Your task to perform on an android device: open app "Grab" (install if not already installed) and go to login screen Image 0: 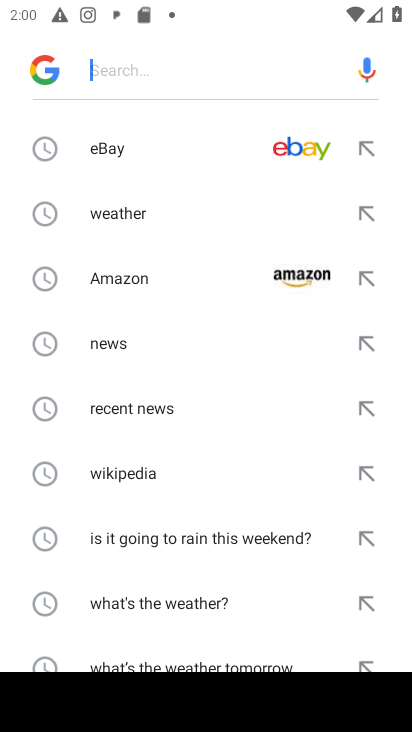
Step 0: press home button
Your task to perform on an android device: open app "Grab" (install if not already installed) and go to login screen Image 1: 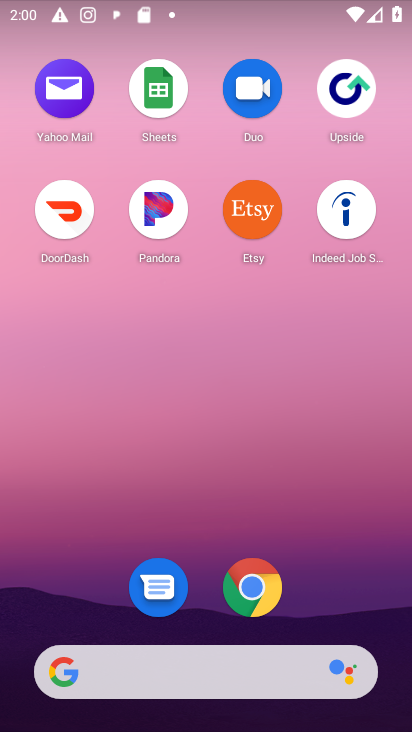
Step 1: press home button
Your task to perform on an android device: open app "Grab" (install if not already installed) and go to login screen Image 2: 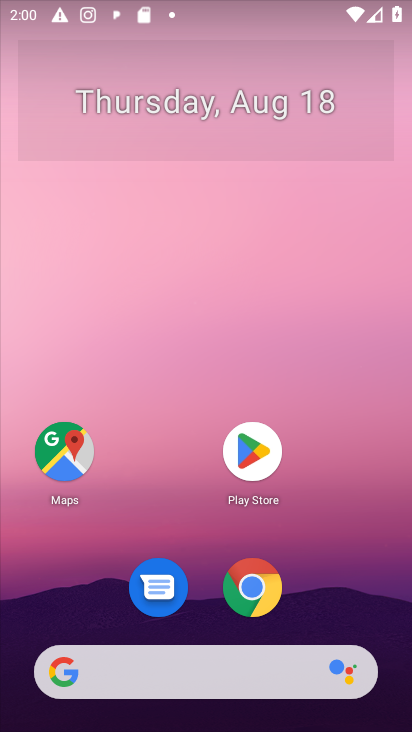
Step 2: click (248, 455)
Your task to perform on an android device: open app "Grab" (install if not already installed) and go to login screen Image 3: 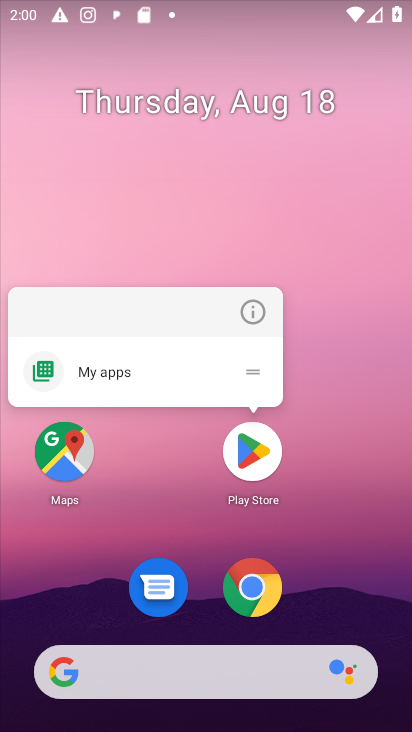
Step 3: click (247, 455)
Your task to perform on an android device: open app "Grab" (install if not already installed) and go to login screen Image 4: 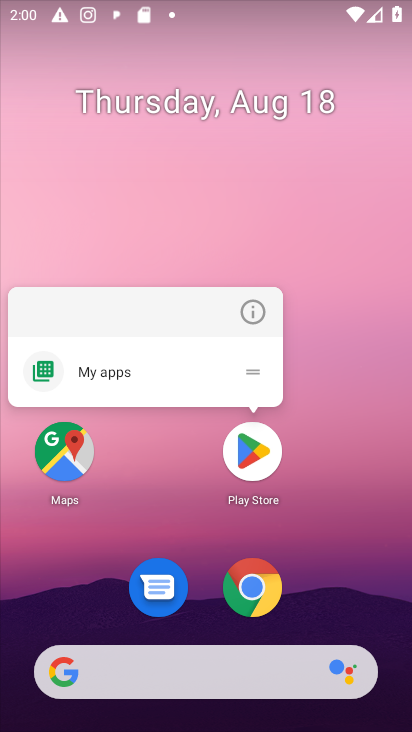
Step 4: click (251, 457)
Your task to perform on an android device: open app "Grab" (install if not already installed) and go to login screen Image 5: 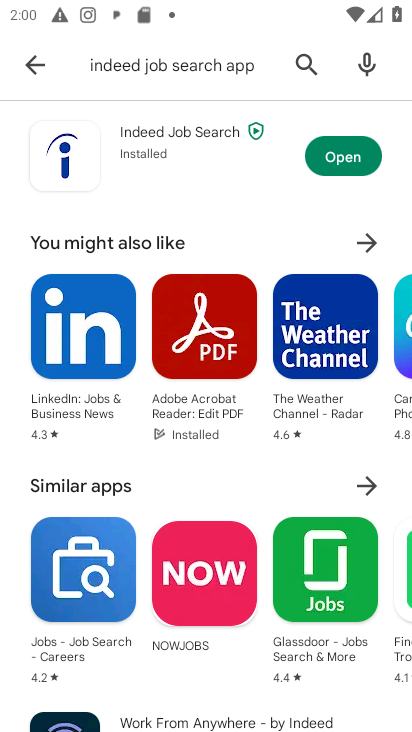
Step 5: click (296, 62)
Your task to perform on an android device: open app "Grab" (install if not already installed) and go to login screen Image 6: 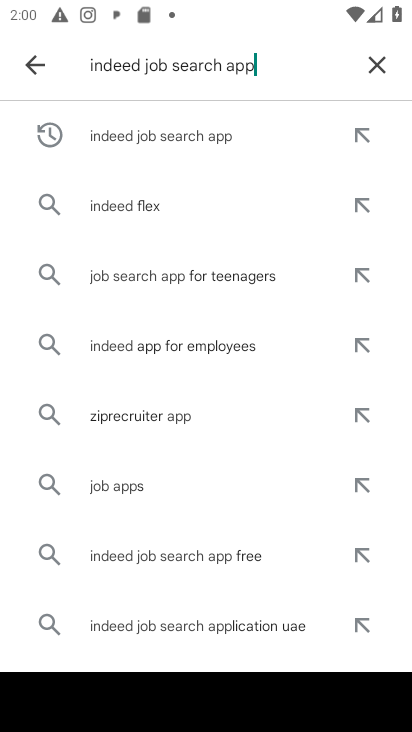
Step 6: click (376, 55)
Your task to perform on an android device: open app "Grab" (install if not already installed) and go to login screen Image 7: 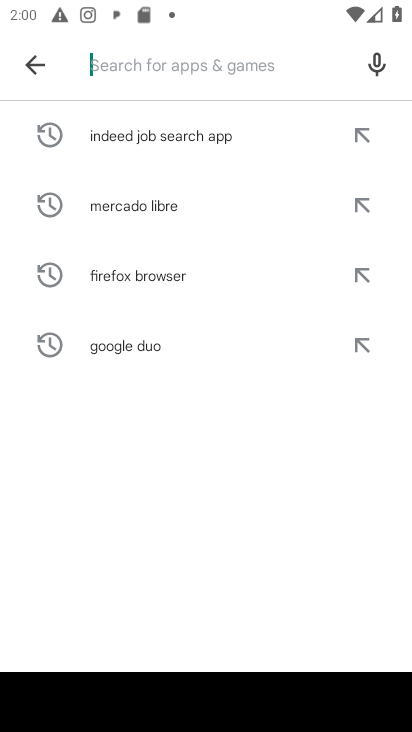
Step 7: type "Grab"
Your task to perform on an android device: open app "Grab" (install if not already installed) and go to login screen Image 8: 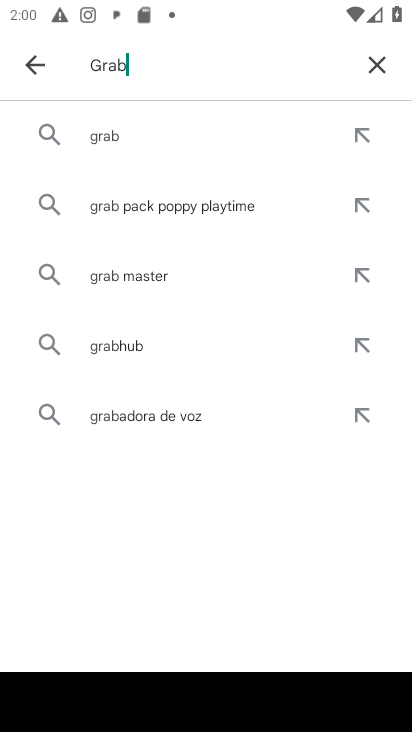
Step 8: click (94, 134)
Your task to perform on an android device: open app "Grab" (install if not already installed) and go to login screen Image 9: 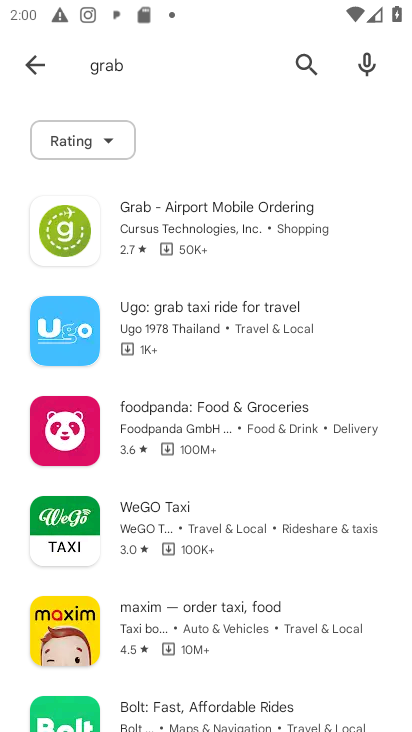
Step 9: click (168, 219)
Your task to perform on an android device: open app "Grab" (install if not already installed) and go to login screen Image 10: 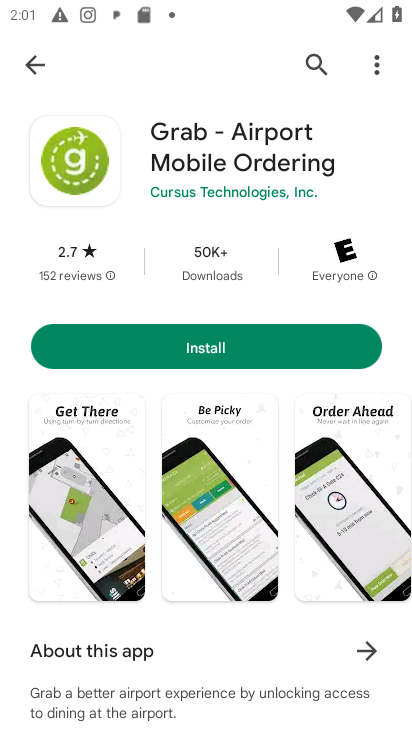
Step 10: click (212, 334)
Your task to perform on an android device: open app "Grab" (install if not already installed) and go to login screen Image 11: 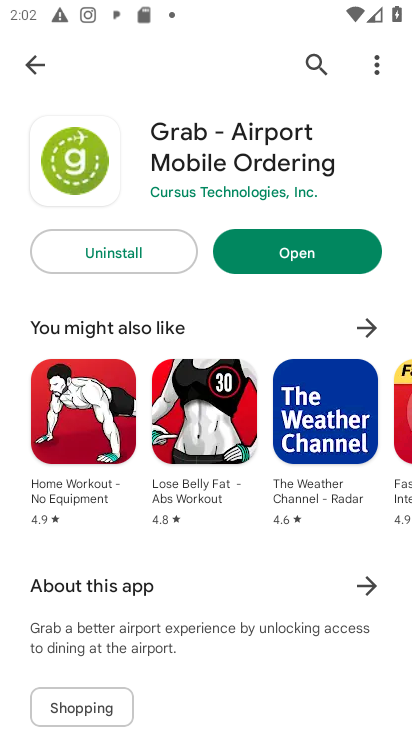
Step 11: click (307, 258)
Your task to perform on an android device: open app "Grab" (install if not already installed) and go to login screen Image 12: 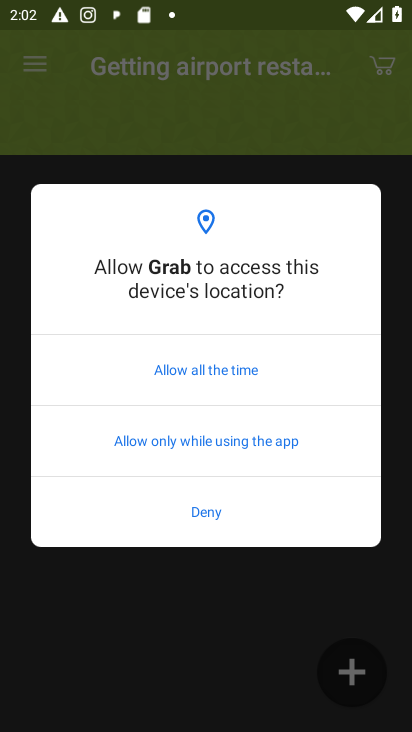
Step 12: click (212, 369)
Your task to perform on an android device: open app "Grab" (install if not already installed) and go to login screen Image 13: 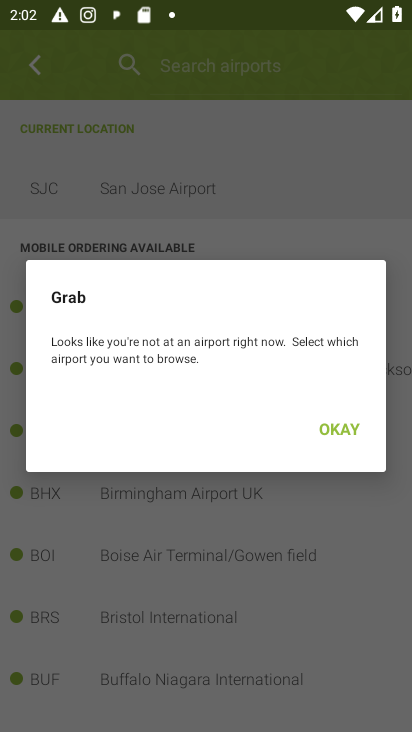
Step 13: task complete